Your task to perform on an android device: open app "Adobe Express: Graphic Design" Image 0: 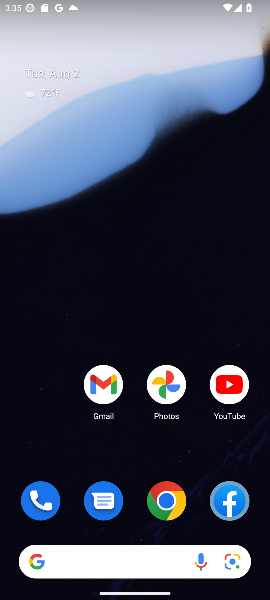
Step 0: drag from (134, 441) to (150, 0)
Your task to perform on an android device: open app "Adobe Express: Graphic Design" Image 1: 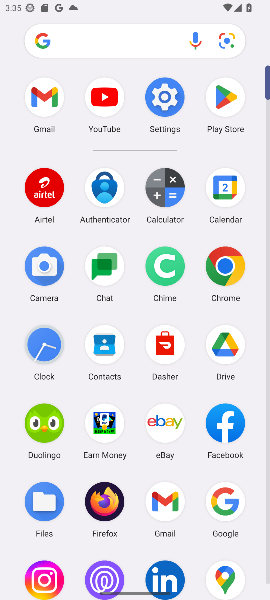
Step 1: click (241, 89)
Your task to perform on an android device: open app "Adobe Express: Graphic Design" Image 2: 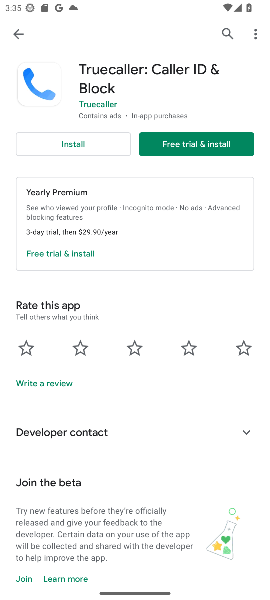
Step 2: click (223, 35)
Your task to perform on an android device: open app "Adobe Express: Graphic Design" Image 3: 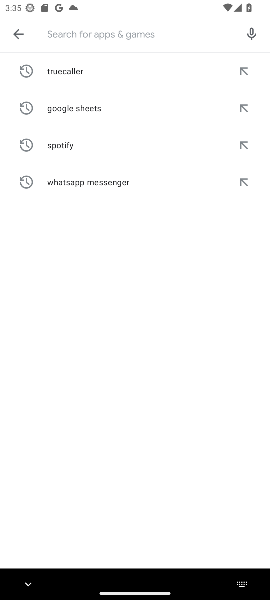
Step 3: type "Adobe Express: Graphic Design"
Your task to perform on an android device: open app "Adobe Express: Graphic Design" Image 4: 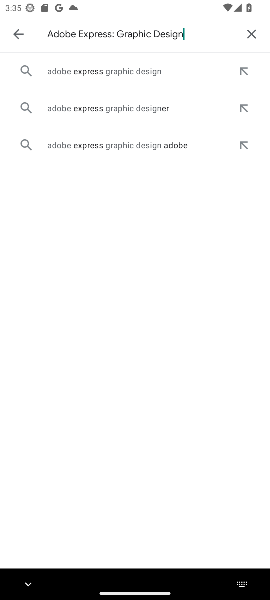
Step 4: click (113, 71)
Your task to perform on an android device: open app "Adobe Express: Graphic Design" Image 5: 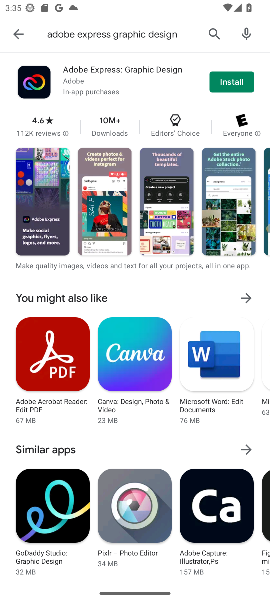
Step 5: task complete